Your task to perform on an android device: toggle airplane mode Image 0: 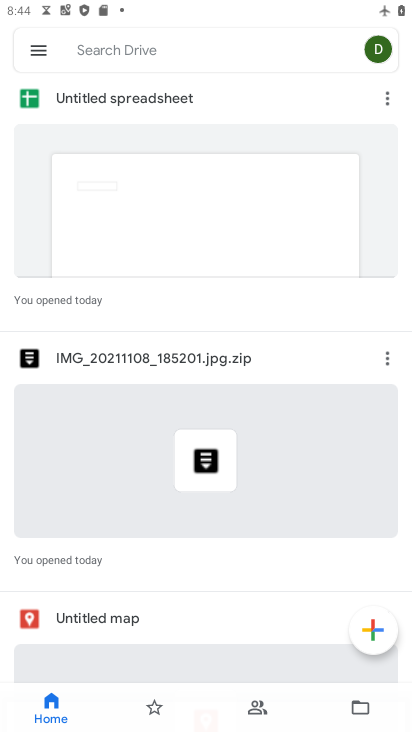
Step 0: press home button
Your task to perform on an android device: toggle airplane mode Image 1: 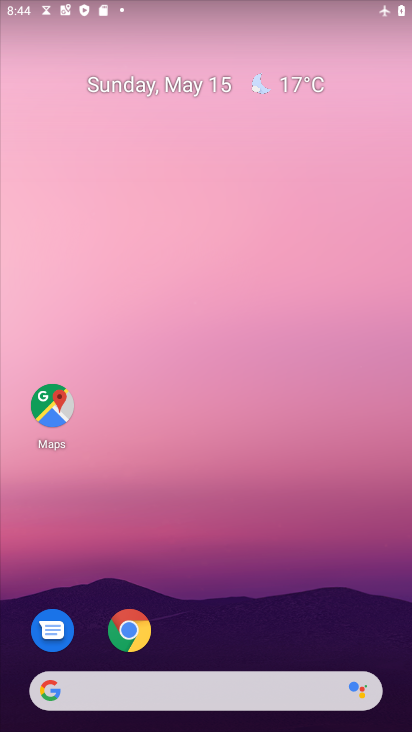
Step 1: drag from (295, 570) to (256, 153)
Your task to perform on an android device: toggle airplane mode Image 2: 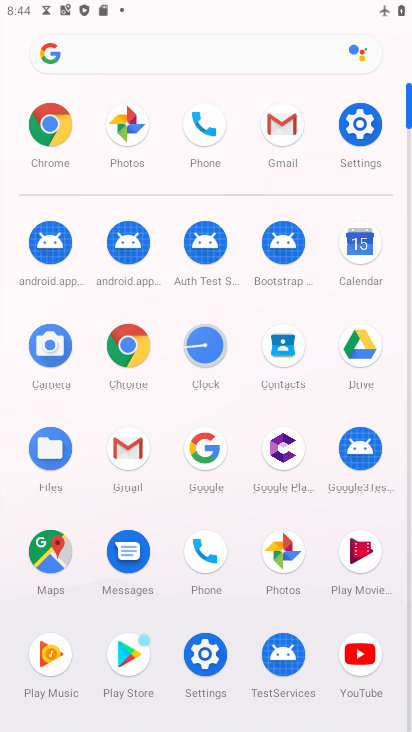
Step 2: click (369, 124)
Your task to perform on an android device: toggle airplane mode Image 3: 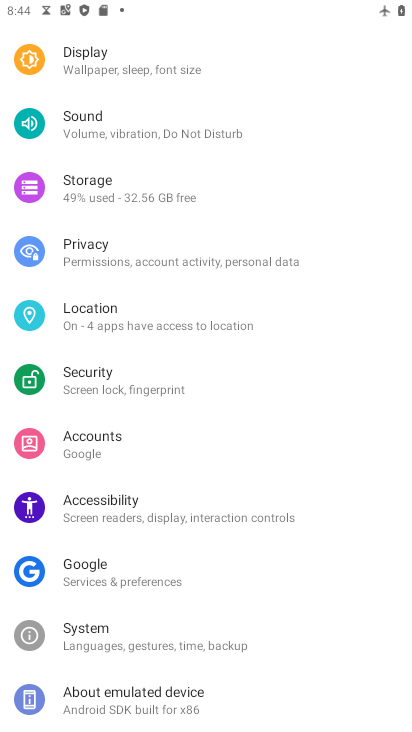
Step 3: drag from (280, 101) to (161, 614)
Your task to perform on an android device: toggle airplane mode Image 4: 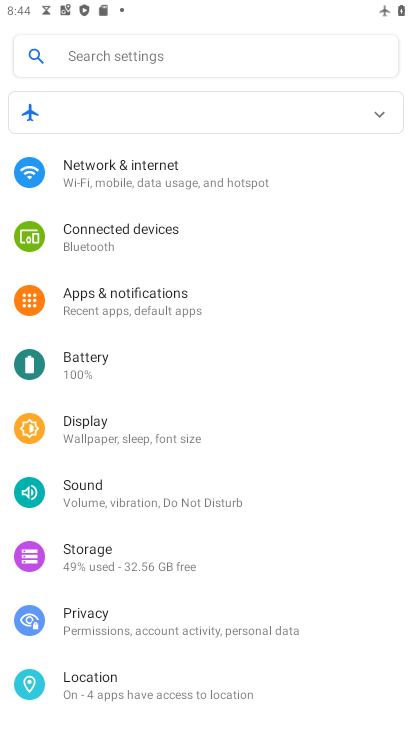
Step 4: click (160, 183)
Your task to perform on an android device: toggle airplane mode Image 5: 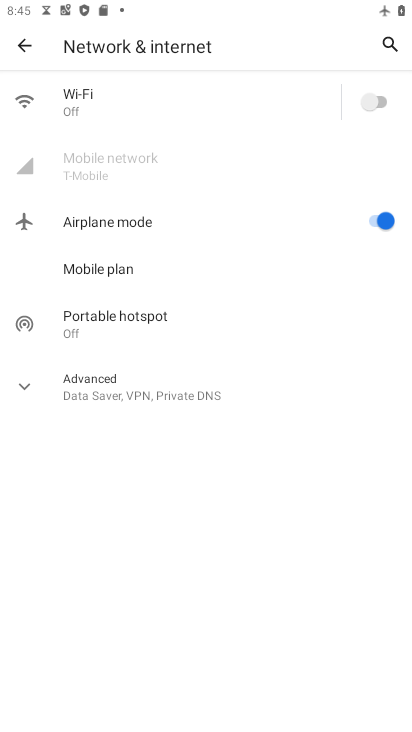
Step 5: click (378, 229)
Your task to perform on an android device: toggle airplane mode Image 6: 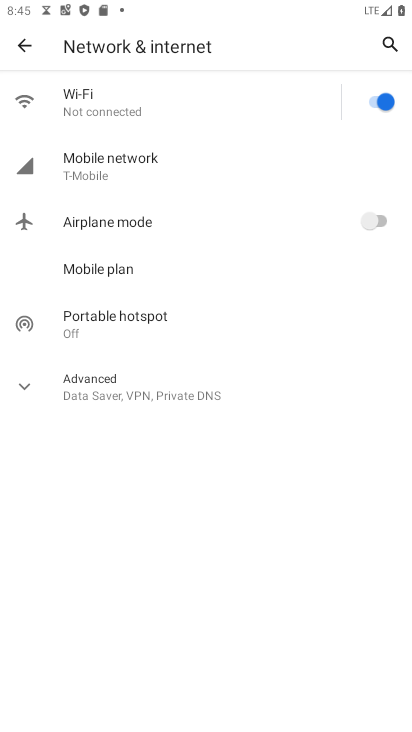
Step 6: task complete